Your task to perform on an android device: Toggle the flashlight Image 0: 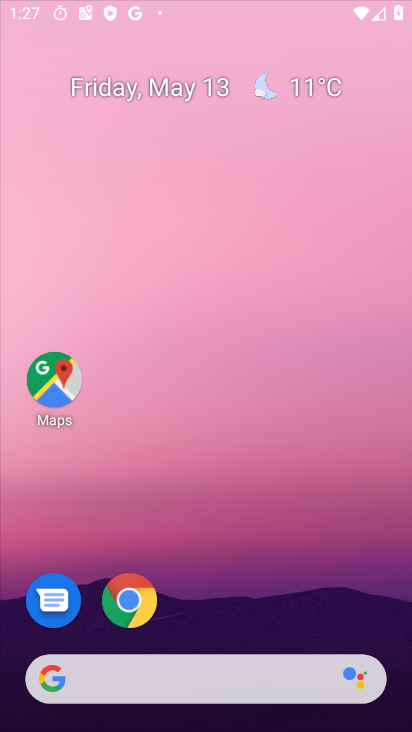
Step 0: drag from (348, 158) to (358, 102)
Your task to perform on an android device: Toggle the flashlight Image 1: 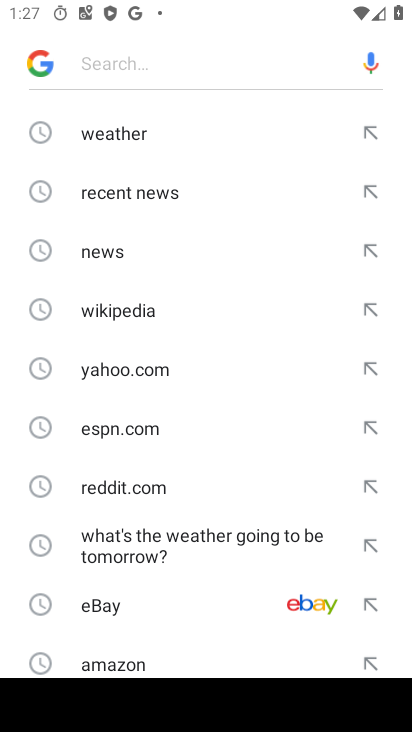
Step 1: press home button
Your task to perform on an android device: Toggle the flashlight Image 2: 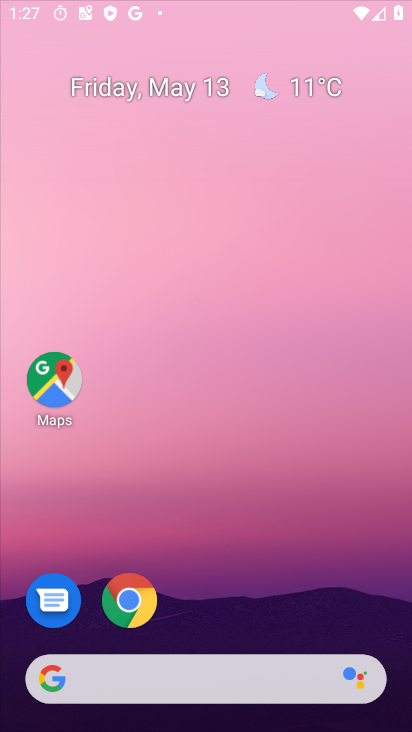
Step 2: drag from (203, 586) to (308, 118)
Your task to perform on an android device: Toggle the flashlight Image 3: 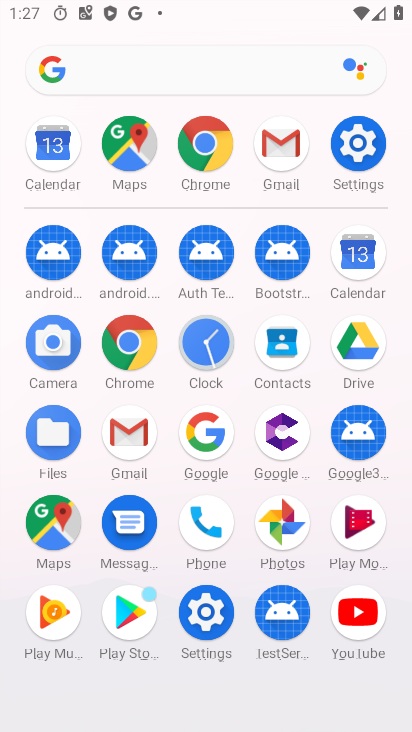
Step 3: click (361, 135)
Your task to perform on an android device: Toggle the flashlight Image 4: 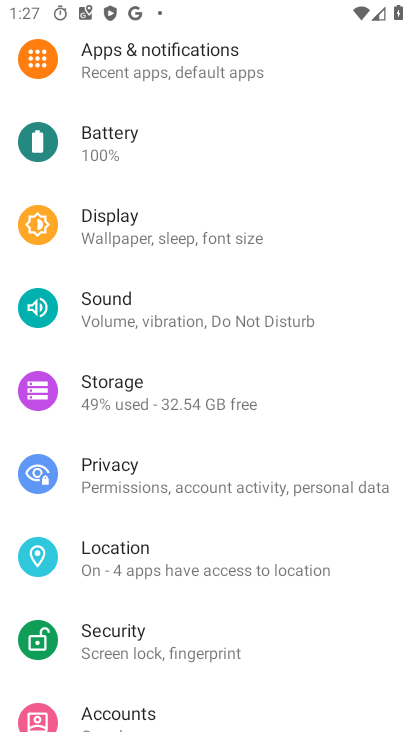
Step 4: drag from (147, 90) to (233, 673)
Your task to perform on an android device: Toggle the flashlight Image 5: 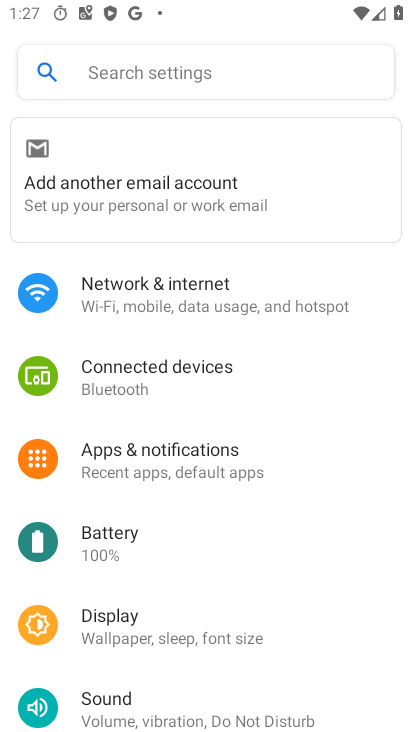
Step 5: click (189, 76)
Your task to perform on an android device: Toggle the flashlight Image 6: 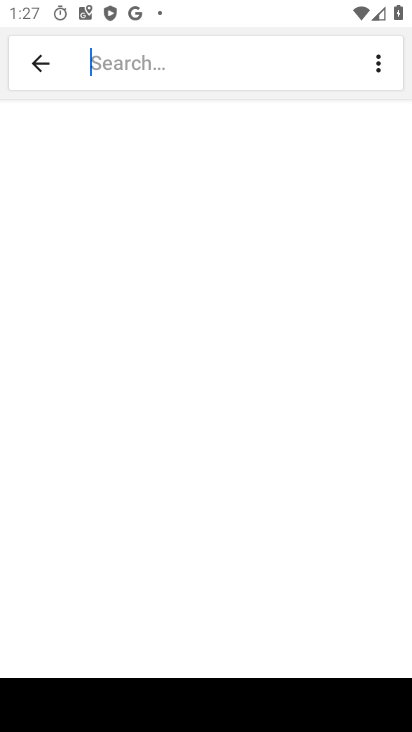
Step 6: type "flashlight"
Your task to perform on an android device: Toggle the flashlight Image 7: 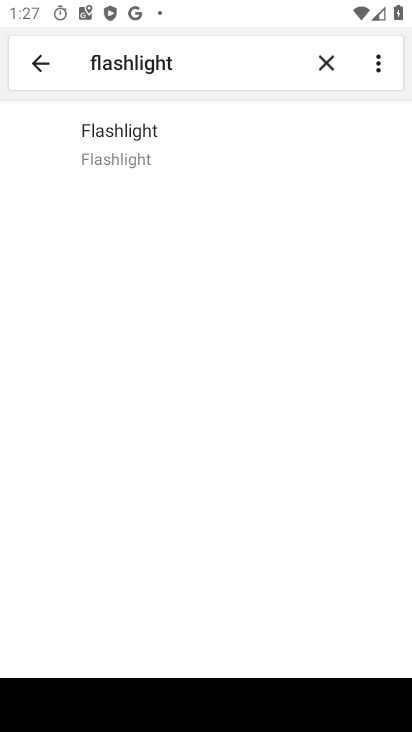
Step 7: click (152, 141)
Your task to perform on an android device: Toggle the flashlight Image 8: 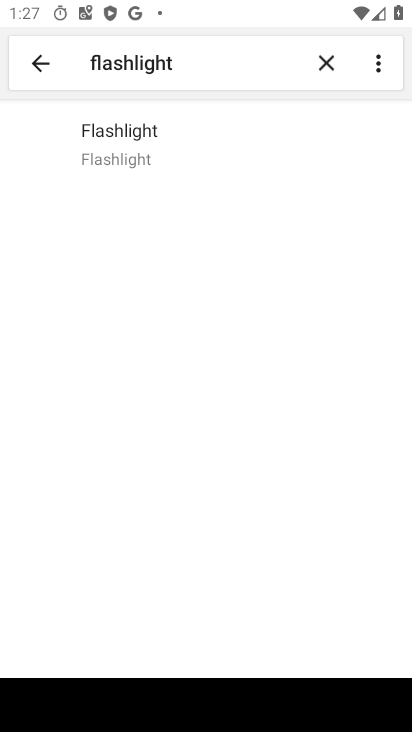
Step 8: task complete